Your task to perform on an android device: turn on the 12-hour format for clock Image 0: 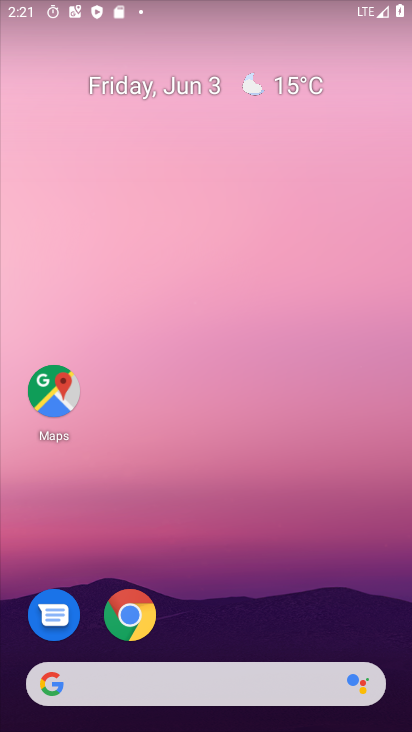
Step 0: drag from (221, 617) to (246, 262)
Your task to perform on an android device: turn on the 12-hour format for clock Image 1: 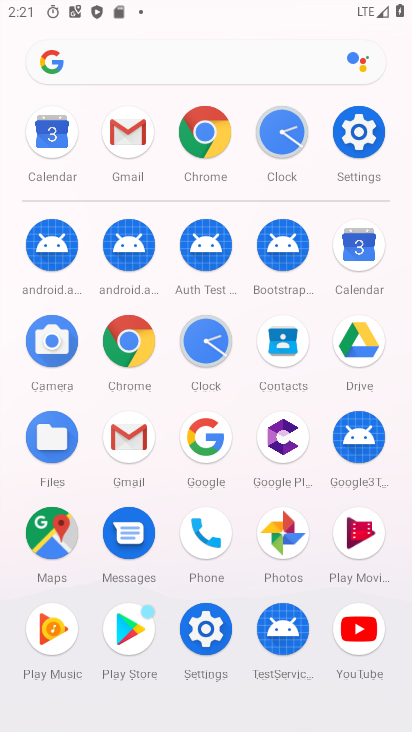
Step 1: click (196, 345)
Your task to perform on an android device: turn on the 12-hour format for clock Image 2: 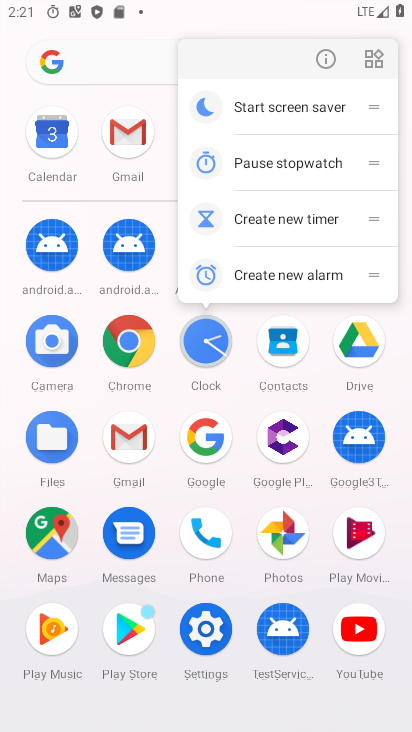
Step 2: click (334, 52)
Your task to perform on an android device: turn on the 12-hour format for clock Image 3: 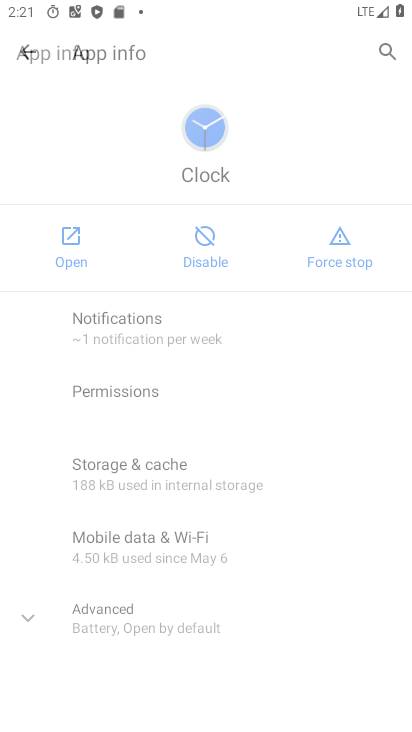
Step 3: drag from (198, 616) to (226, 217)
Your task to perform on an android device: turn on the 12-hour format for clock Image 4: 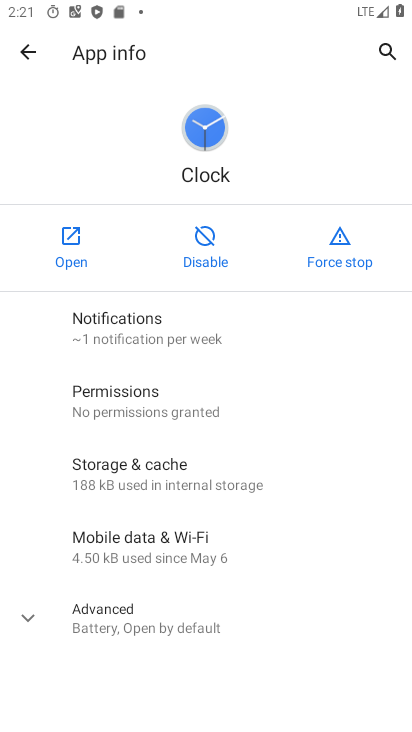
Step 4: click (66, 251)
Your task to perform on an android device: turn on the 12-hour format for clock Image 5: 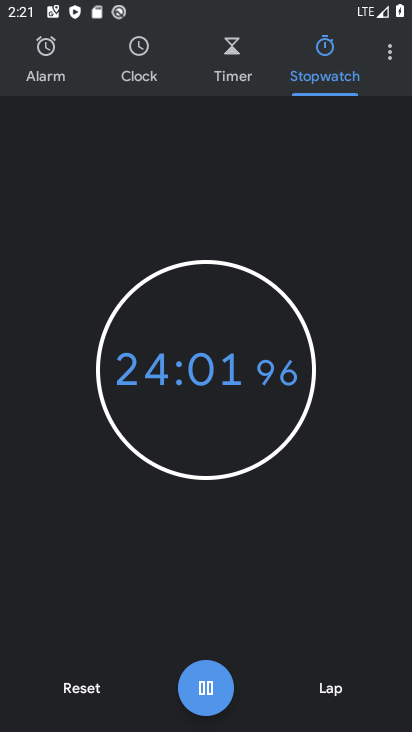
Step 5: click (55, 696)
Your task to perform on an android device: turn on the 12-hour format for clock Image 6: 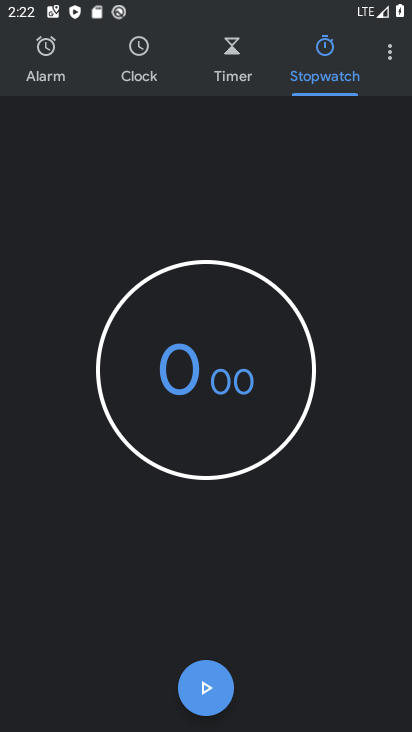
Step 6: click (394, 43)
Your task to perform on an android device: turn on the 12-hour format for clock Image 7: 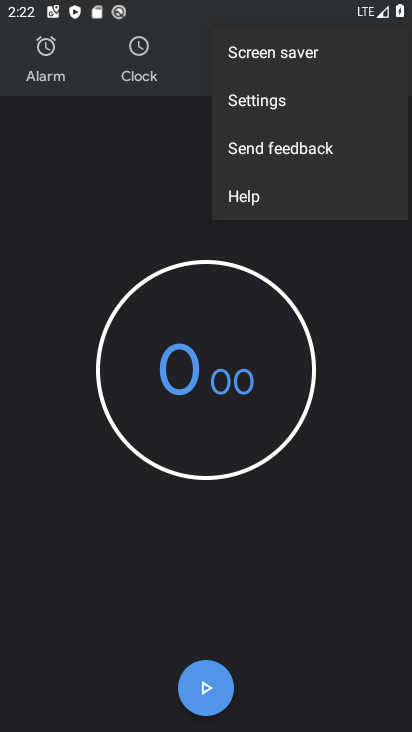
Step 7: click (289, 102)
Your task to perform on an android device: turn on the 12-hour format for clock Image 8: 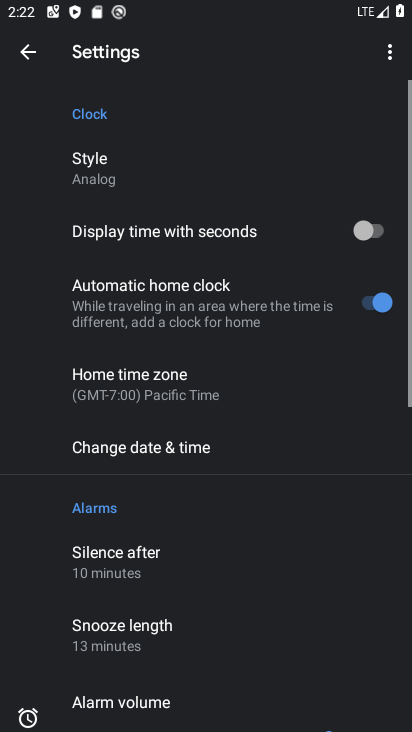
Step 8: task complete